Your task to perform on an android device: move a message to another label in the gmail app Image 0: 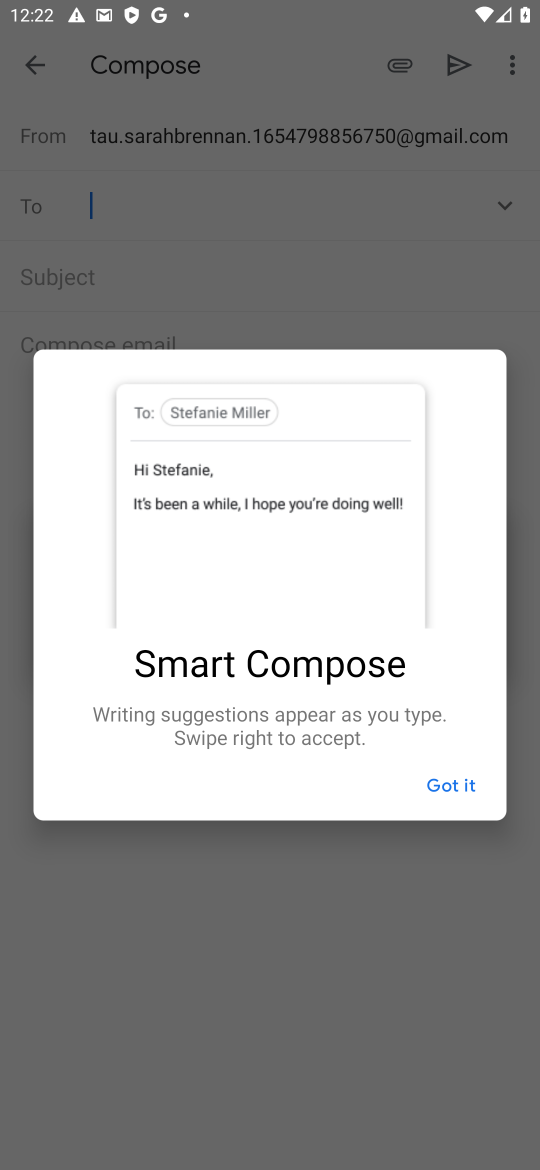
Step 0: task complete